Your task to perform on an android device: Open battery settings Image 0: 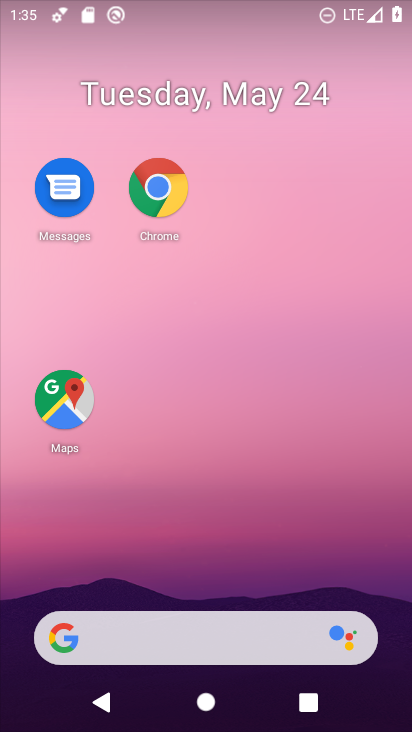
Step 0: drag from (188, 542) to (168, 22)
Your task to perform on an android device: Open battery settings Image 1: 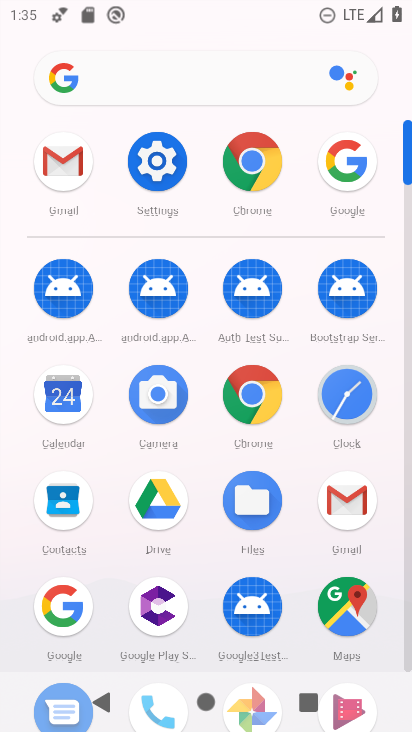
Step 1: click (159, 180)
Your task to perform on an android device: Open battery settings Image 2: 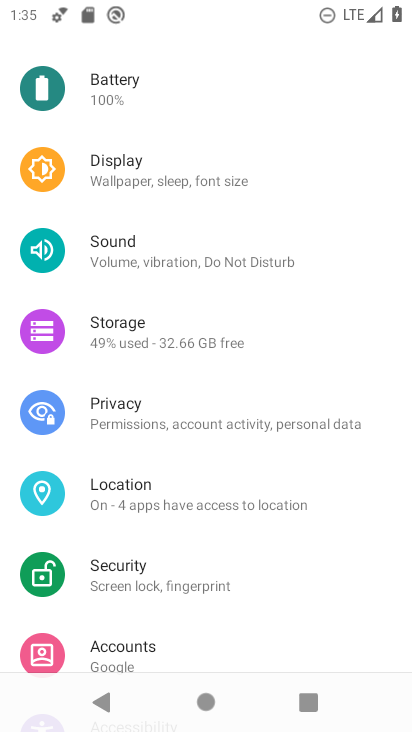
Step 2: click (115, 80)
Your task to perform on an android device: Open battery settings Image 3: 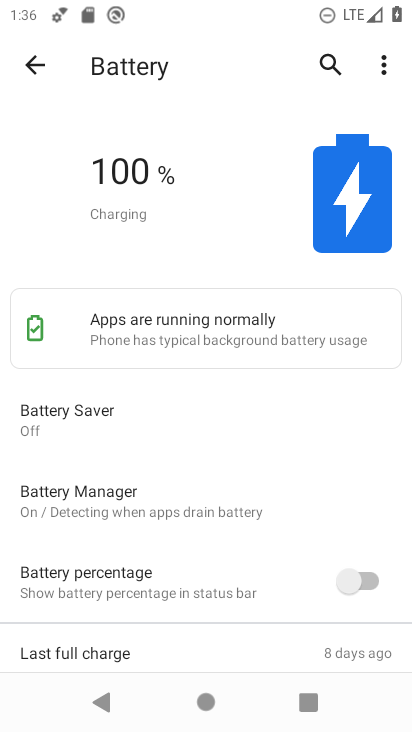
Step 3: task complete